Your task to perform on an android device: When is my next meeting? Image 0: 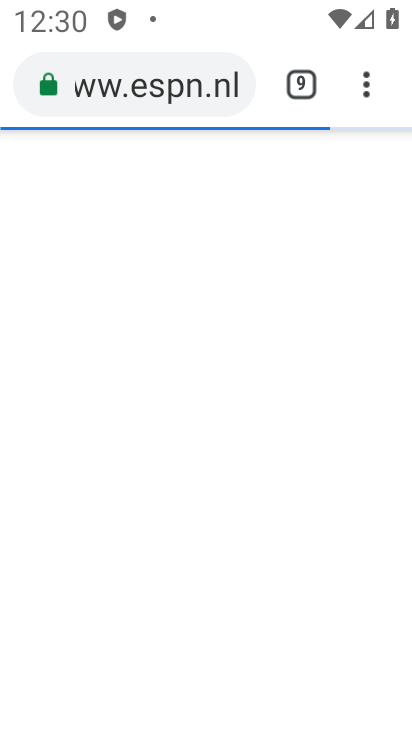
Step 0: press home button
Your task to perform on an android device: When is my next meeting? Image 1: 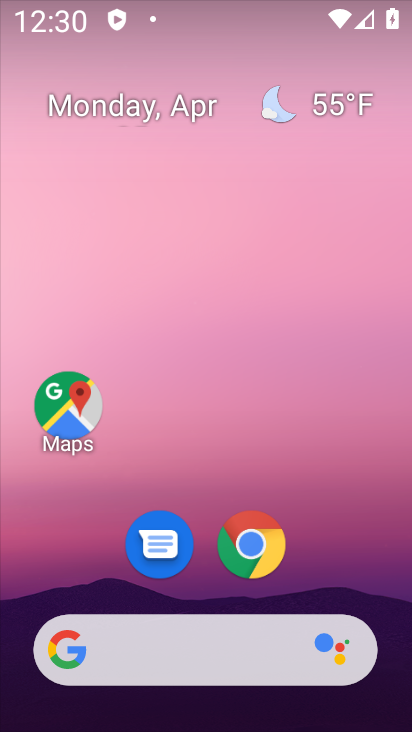
Step 1: drag from (191, 375) to (90, 47)
Your task to perform on an android device: When is my next meeting? Image 2: 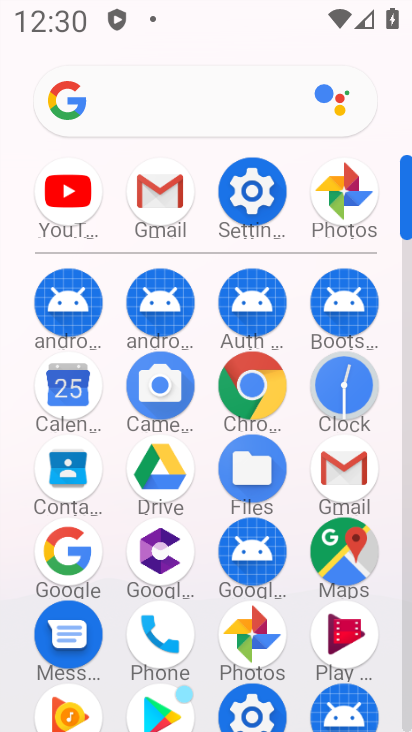
Step 2: click (68, 403)
Your task to perform on an android device: When is my next meeting? Image 3: 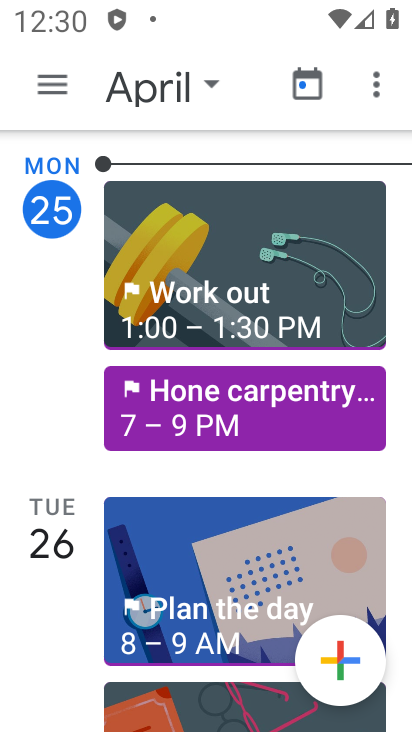
Step 3: task complete